Your task to perform on an android device: Clear the shopping cart on costco. Image 0: 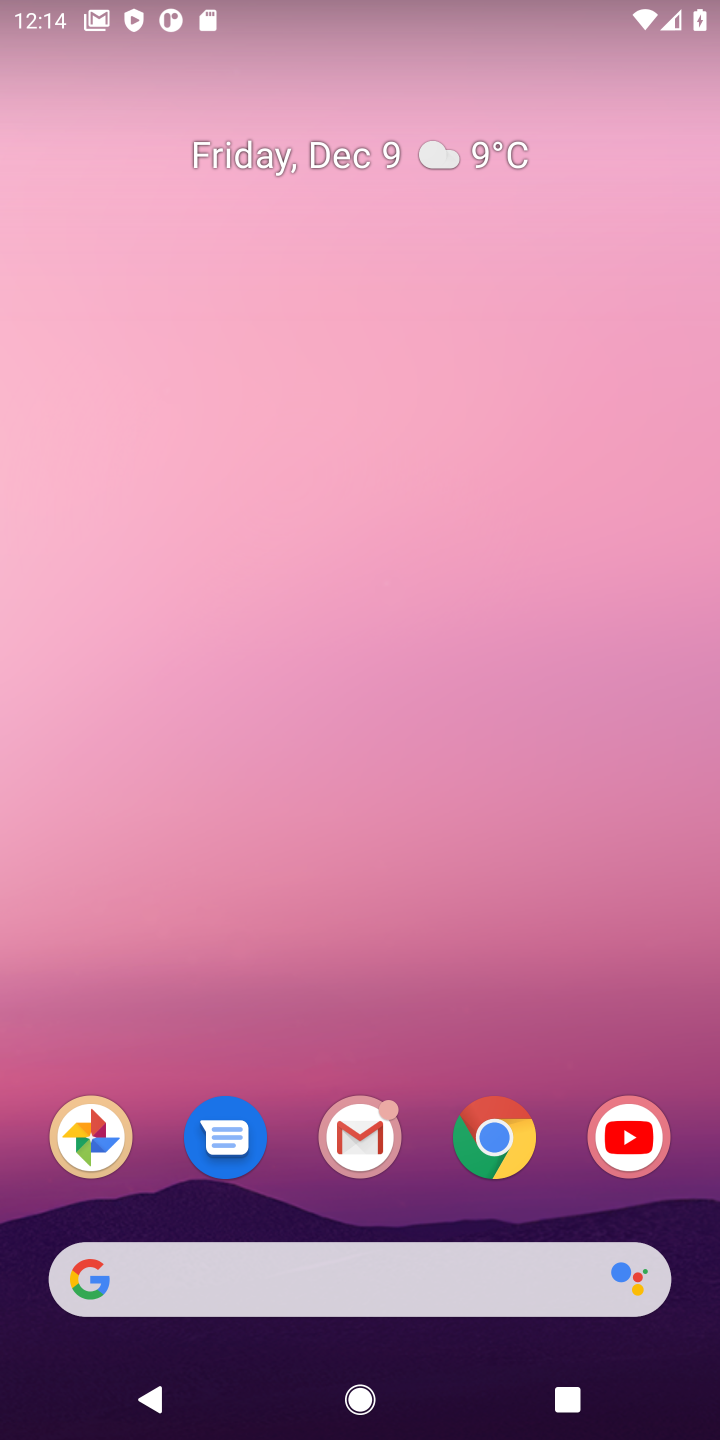
Step 0: click (398, 1315)
Your task to perform on an android device: Clear the shopping cart on costco. Image 1: 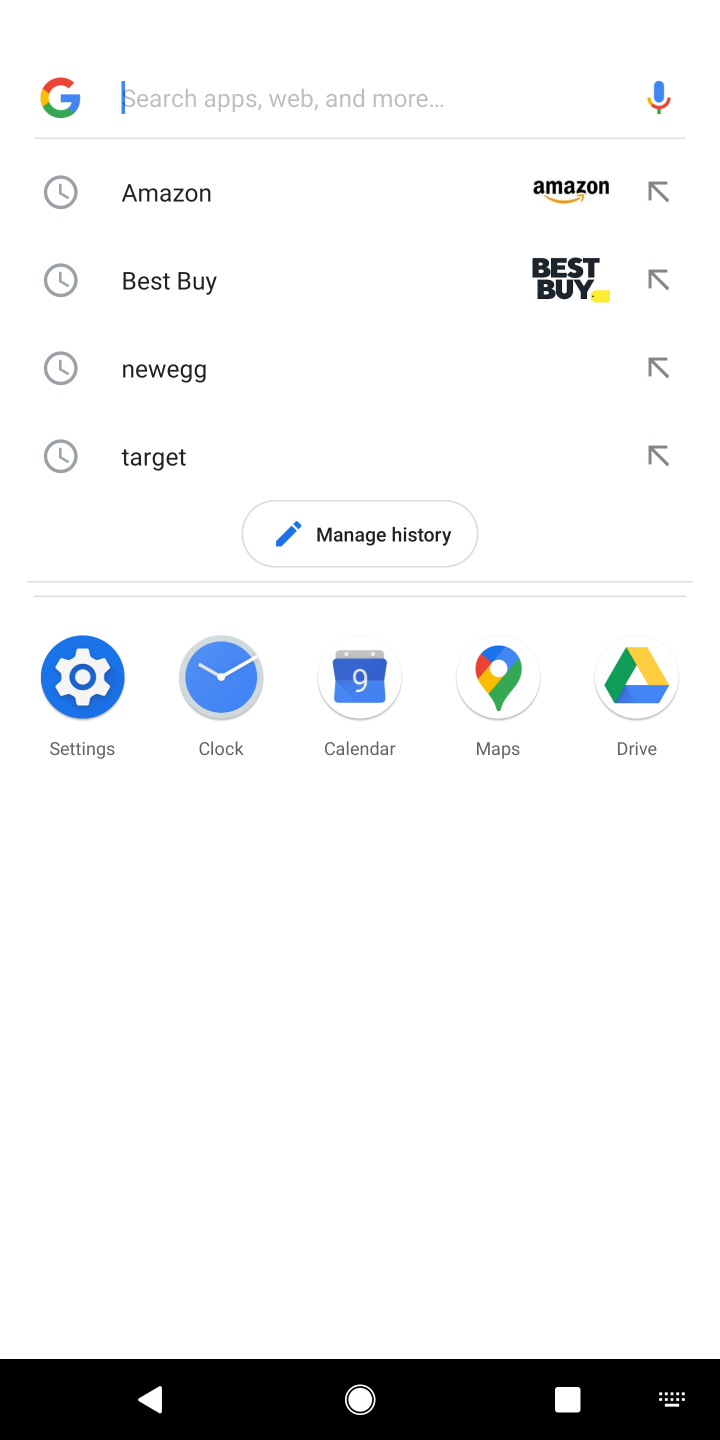
Step 1: type "costco"
Your task to perform on an android device: Clear the shopping cart on costco. Image 2: 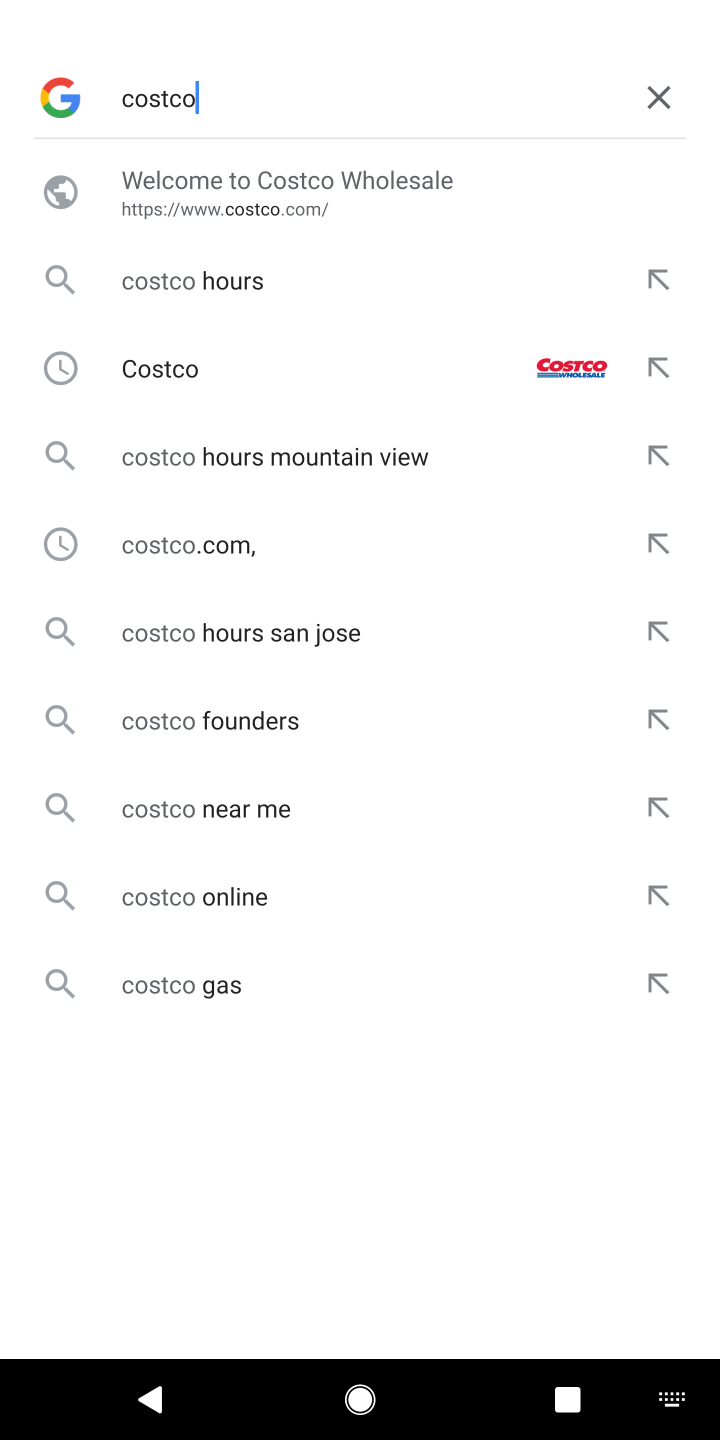
Step 2: click (244, 214)
Your task to perform on an android device: Clear the shopping cart on costco. Image 3: 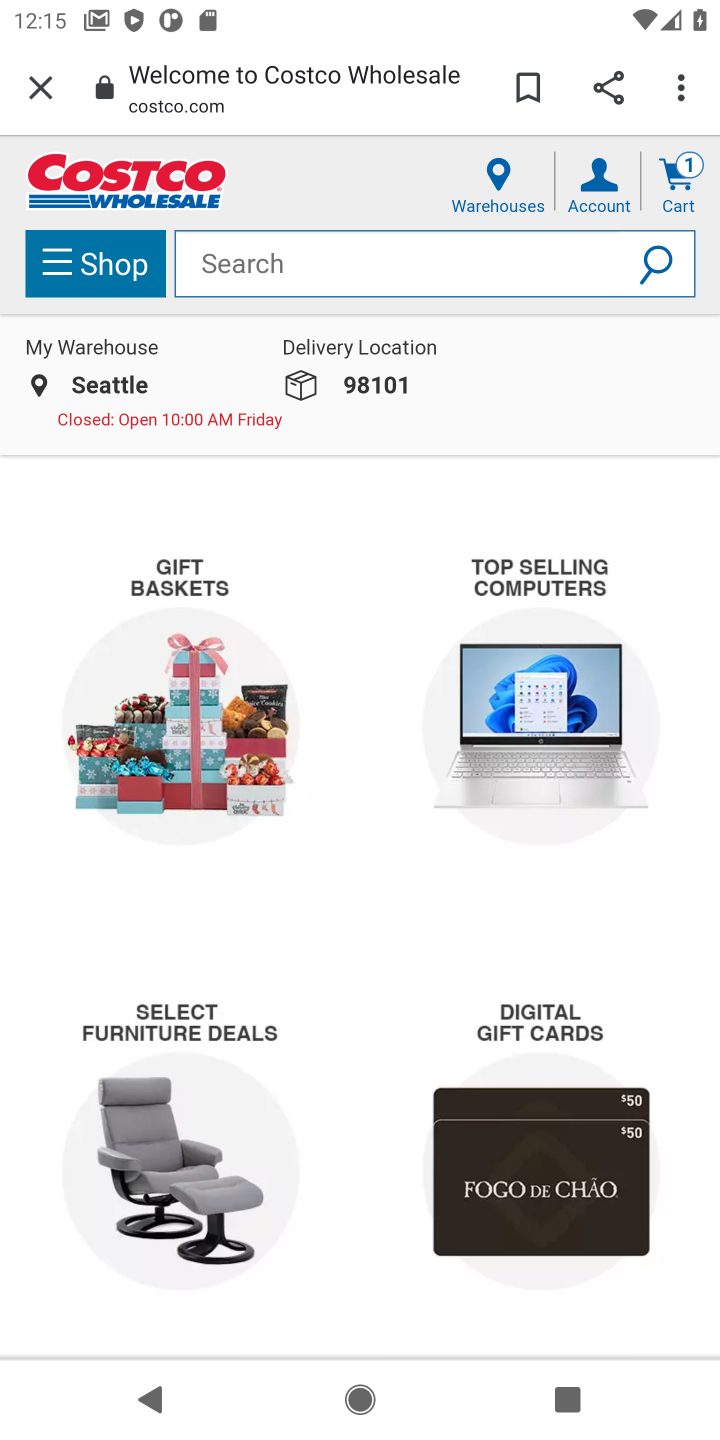
Step 3: click (287, 253)
Your task to perform on an android device: Clear the shopping cart on costco. Image 4: 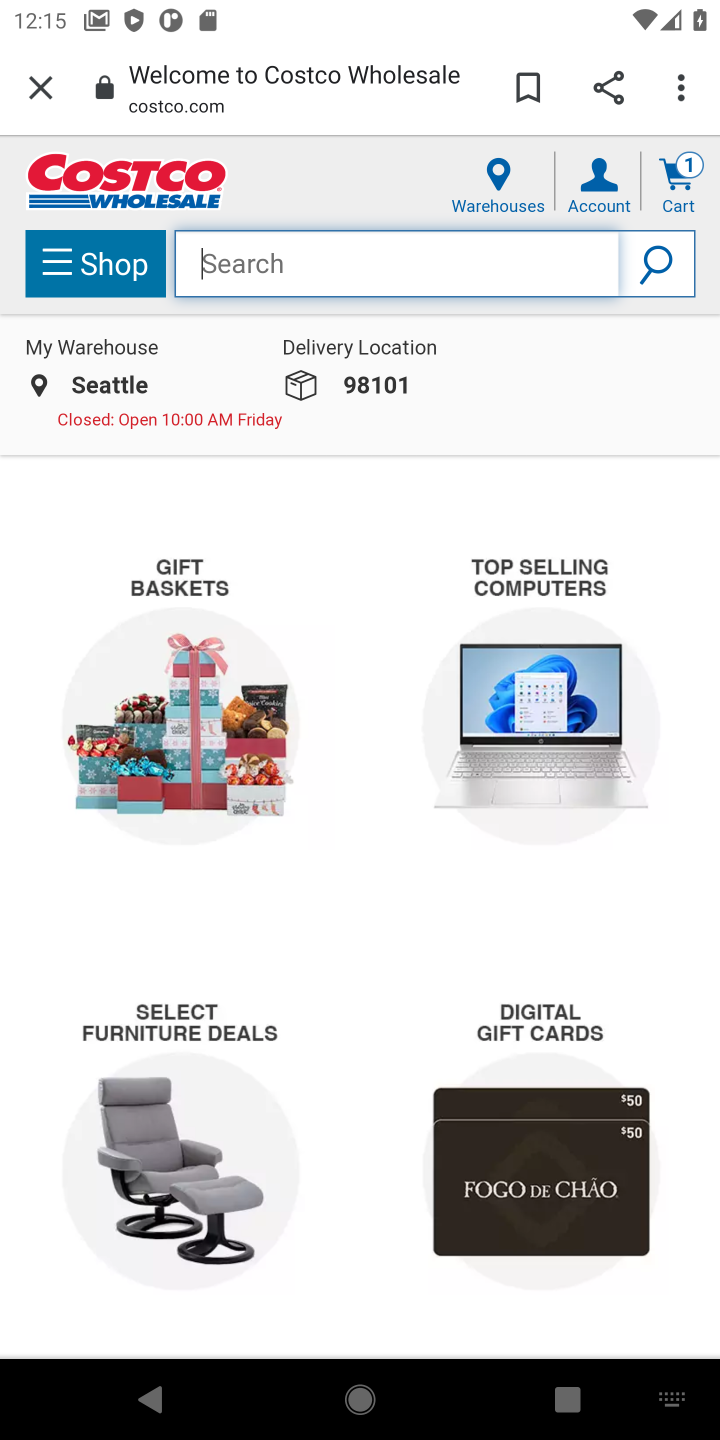
Step 4: click (677, 206)
Your task to perform on an android device: Clear the shopping cart on costco. Image 5: 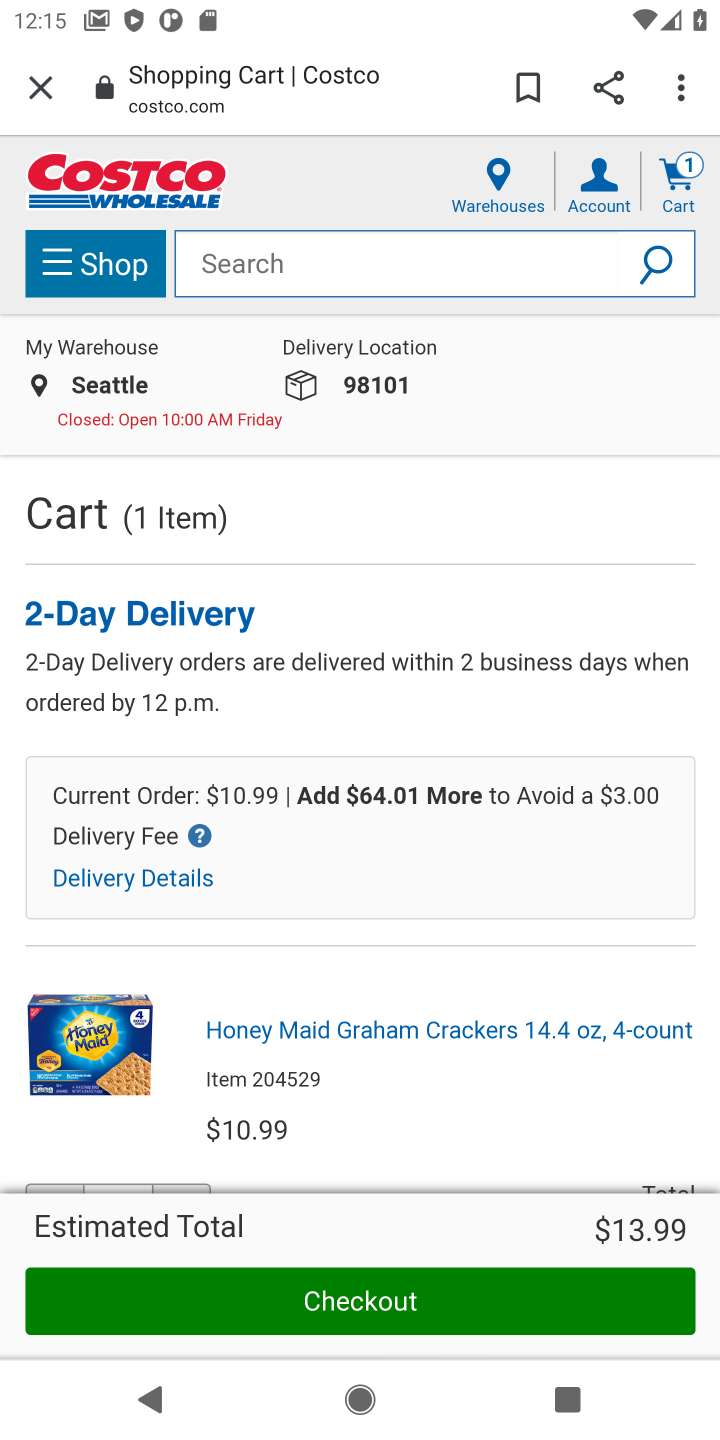
Step 5: task complete